Your task to perform on an android device: toggle javascript in the chrome app Image 0: 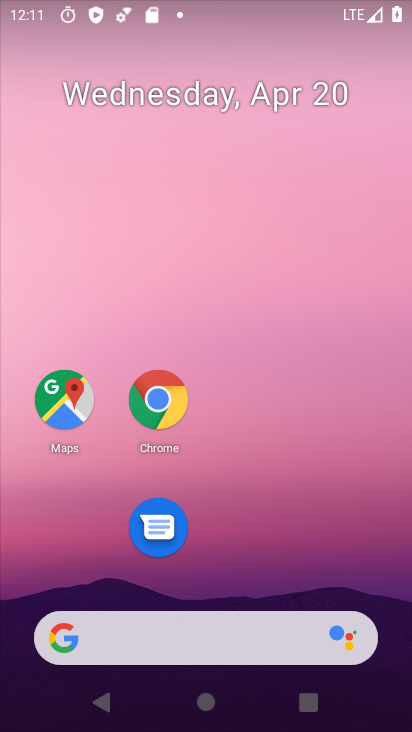
Step 0: drag from (292, 522) to (287, 238)
Your task to perform on an android device: toggle javascript in the chrome app Image 1: 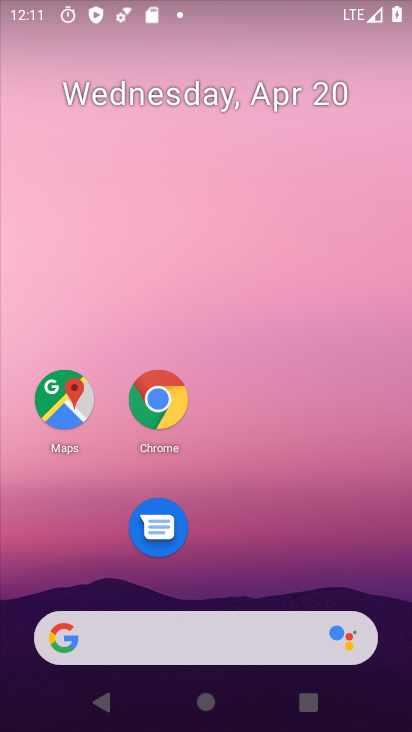
Step 1: drag from (290, 579) to (304, 166)
Your task to perform on an android device: toggle javascript in the chrome app Image 2: 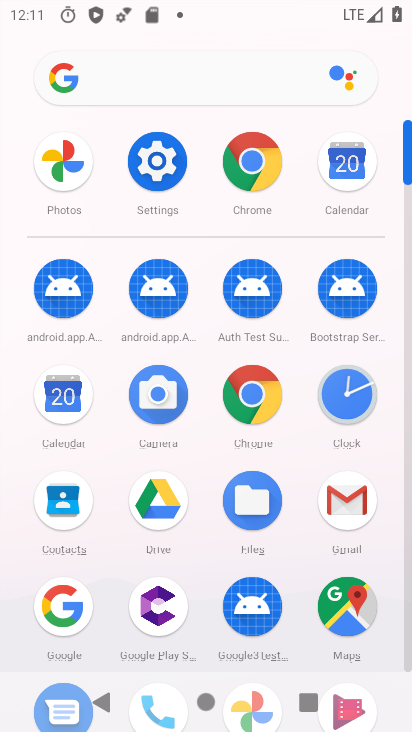
Step 2: click (233, 175)
Your task to perform on an android device: toggle javascript in the chrome app Image 3: 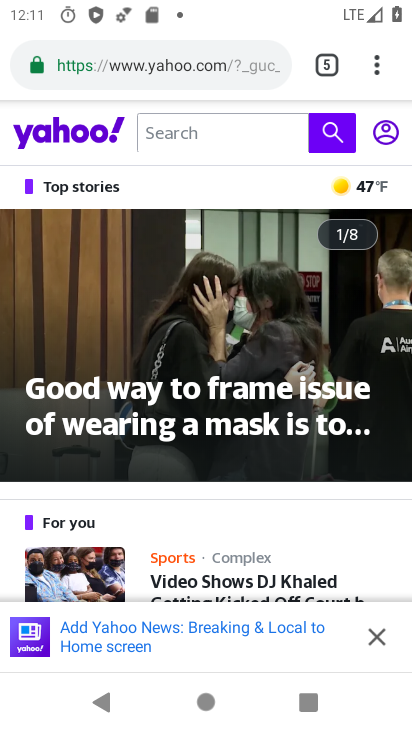
Step 3: click (373, 67)
Your task to perform on an android device: toggle javascript in the chrome app Image 4: 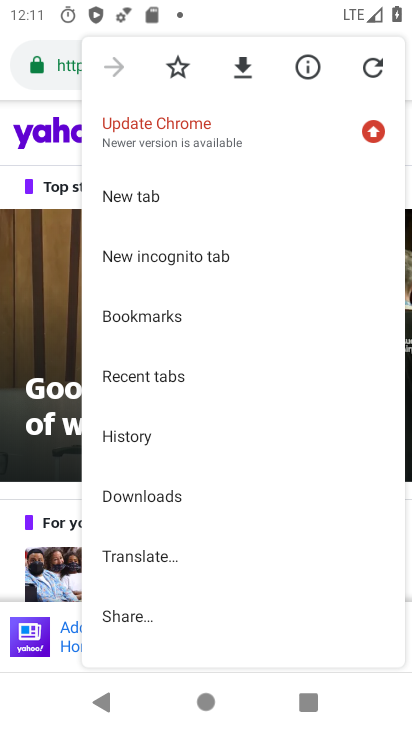
Step 4: drag from (186, 570) to (152, 319)
Your task to perform on an android device: toggle javascript in the chrome app Image 5: 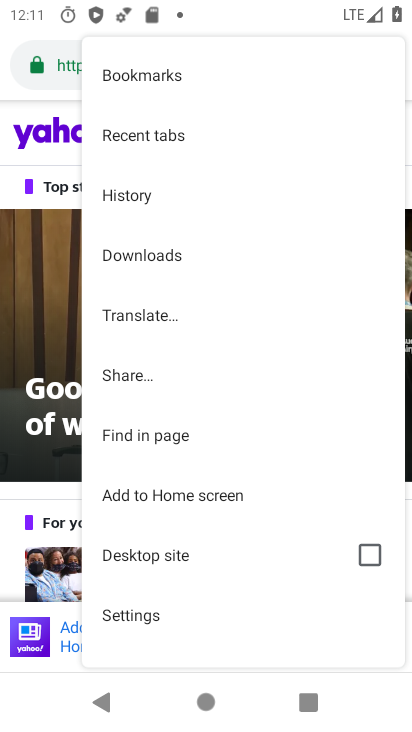
Step 5: click (140, 604)
Your task to perform on an android device: toggle javascript in the chrome app Image 6: 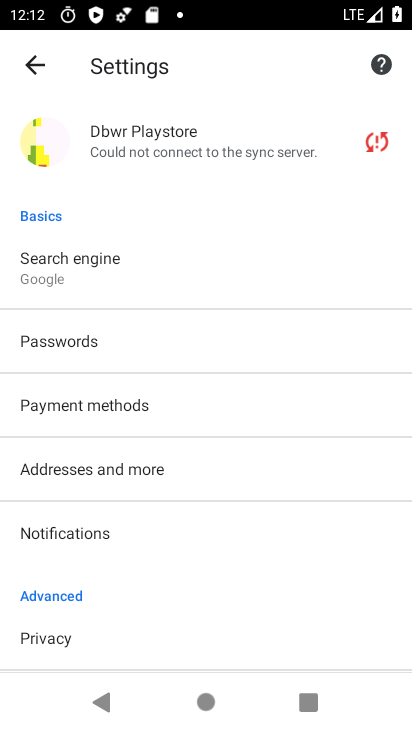
Step 6: drag from (176, 491) to (205, 350)
Your task to perform on an android device: toggle javascript in the chrome app Image 7: 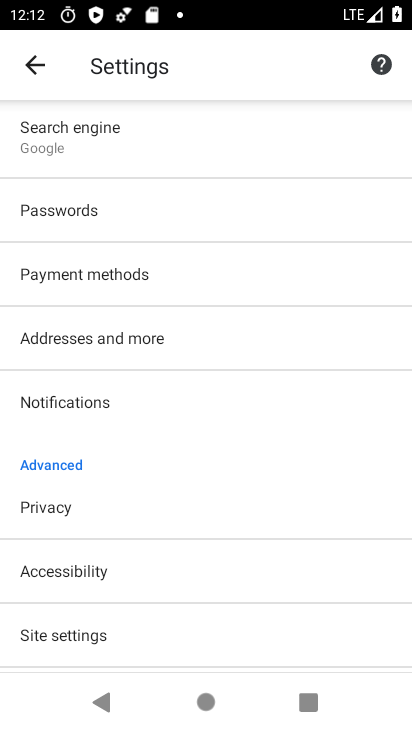
Step 7: click (84, 627)
Your task to perform on an android device: toggle javascript in the chrome app Image 8: 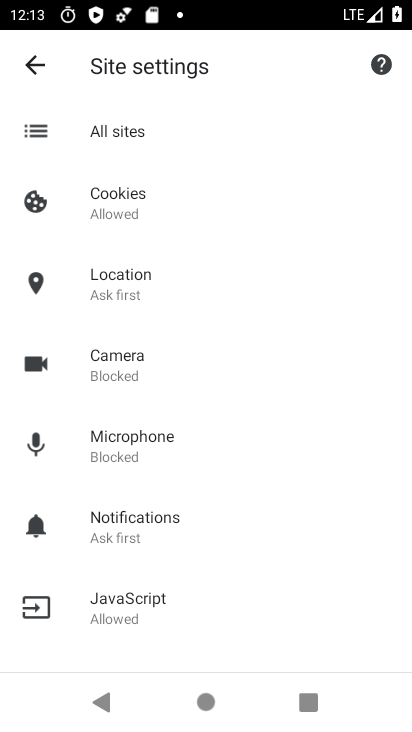
Step 8: click (150, 591)
Your task to perform on an android device: toggle javascript in the chrome app Image 9: 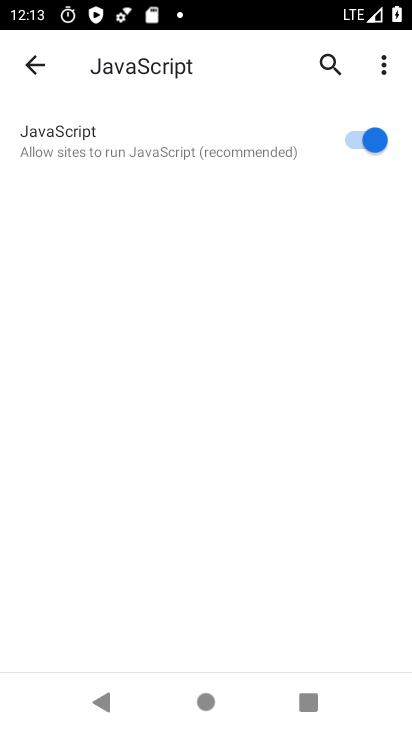
Step 9: task complete